Your task to perform on an android device: turn on sleep mode Image 0: 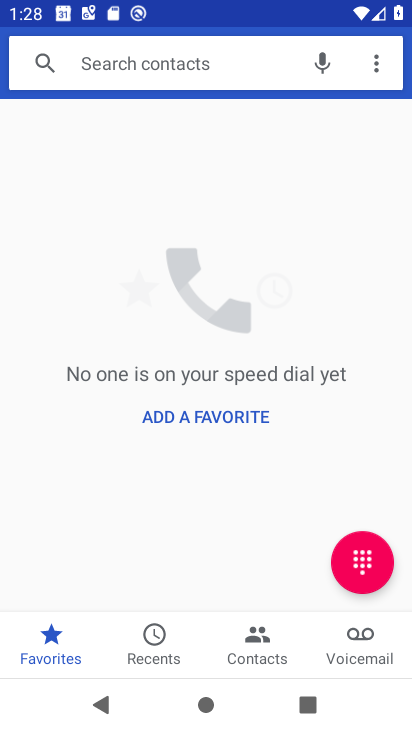
Step 0: press home button
Your task to perform on an android device: turn on sleep mode Image 1: 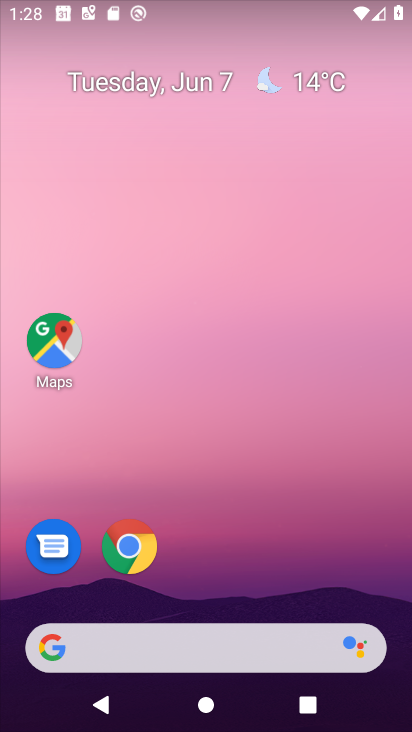
Step 1: drag from (305, 572) to (373, 90)
Your task to perform on an android device: turn on sleep mode Image 2: 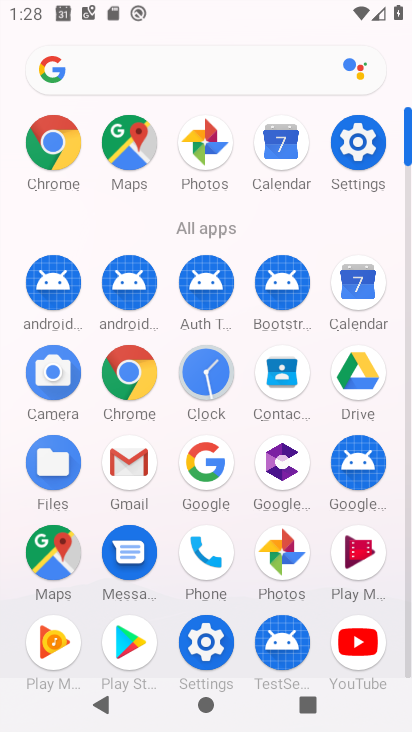
Step 2: click (366, 146)
Your task to perform on an android device: turn on sleep mode Image 3: 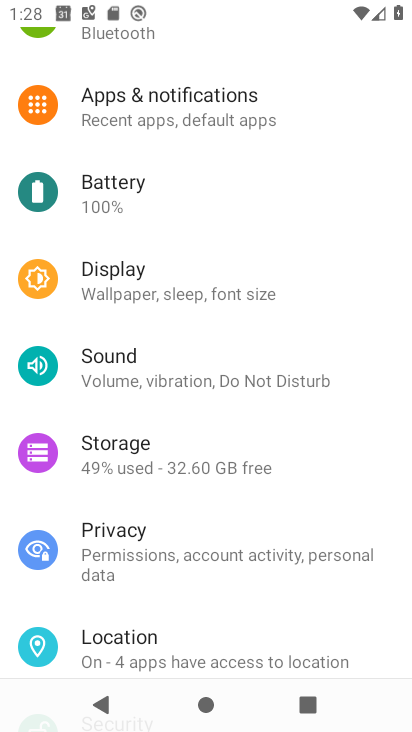
Step 3: click (201, 295)
Your task to perform on an android device: turn on sleep mode Image 4: 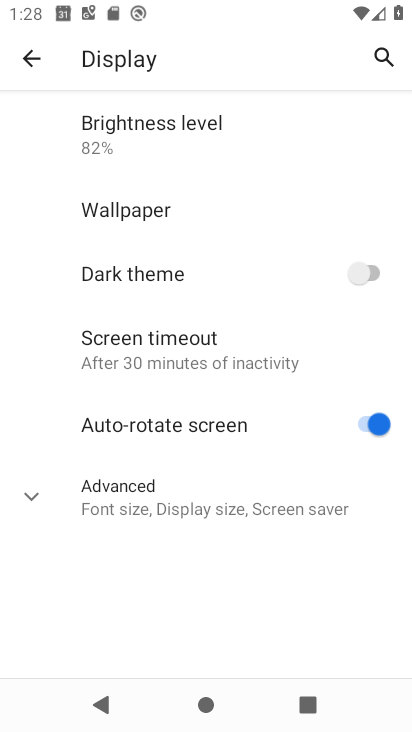
Step 4: click (29, 488)
Your task to perform on an android device: turn on sleep mode Image 5: 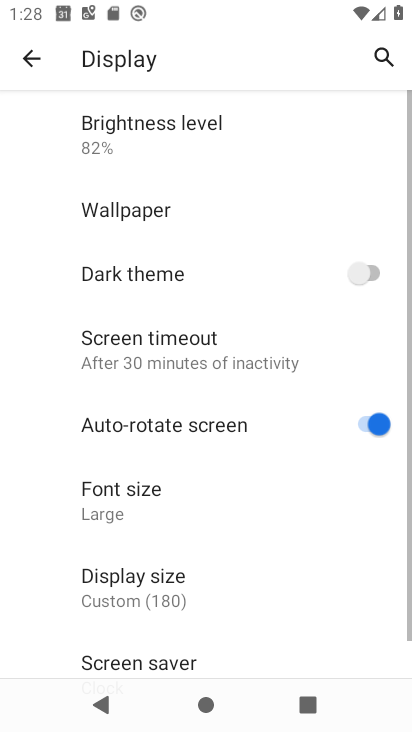
Step 5: task complete